Your task to perform on an android device: open chrome privacy settings Image 0: 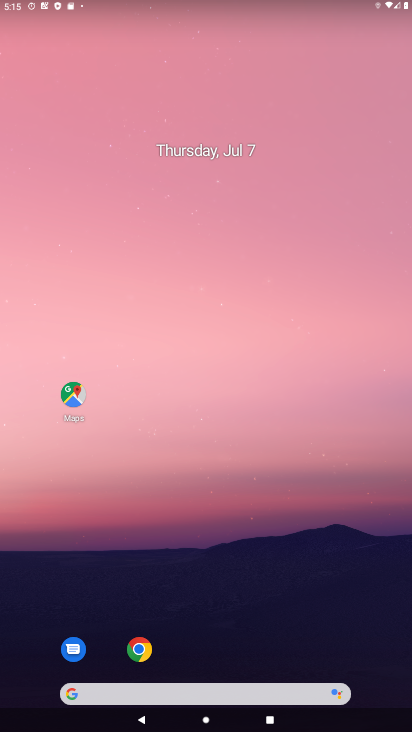
Step 0: drag from (358, 666) to (215, 133)
Your task to perform on an android device: open chrome privacy settings Image 1: 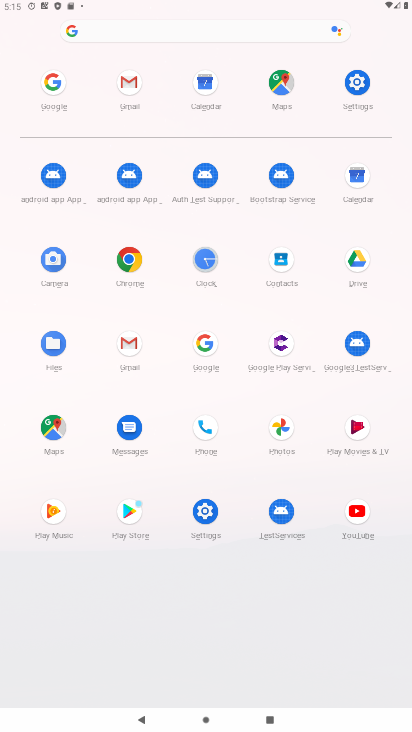
Step 1: click (125, 280)
Your task to perform on an android device: open chrome privacy settings Image 2: 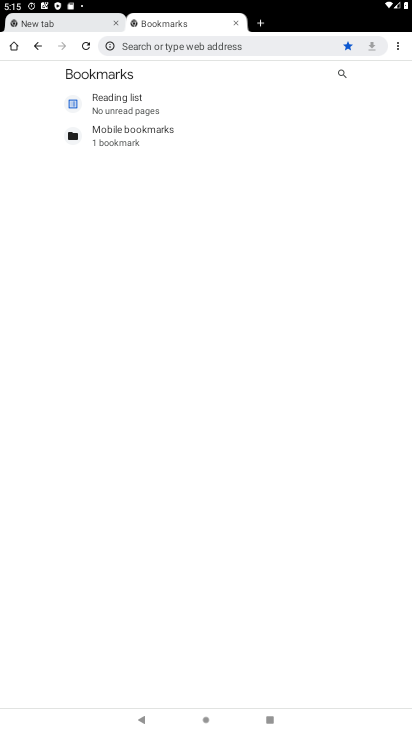
Step 2: press back button
Your task to perform on an android device: open chrome privacy settings Image 3: 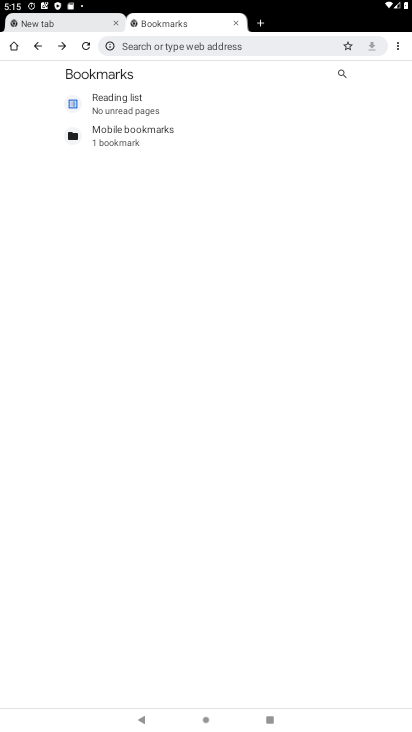
Step 3: click (401, 49)
Your task to perform on an android device: open chrome privacy settings Image 4: 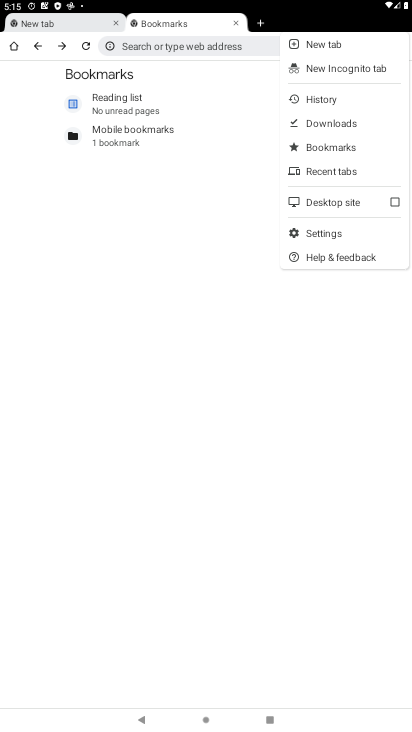
Step 4: click (333, 243)
Your task to perform on an android device: open chrome privacy settings Image 5: 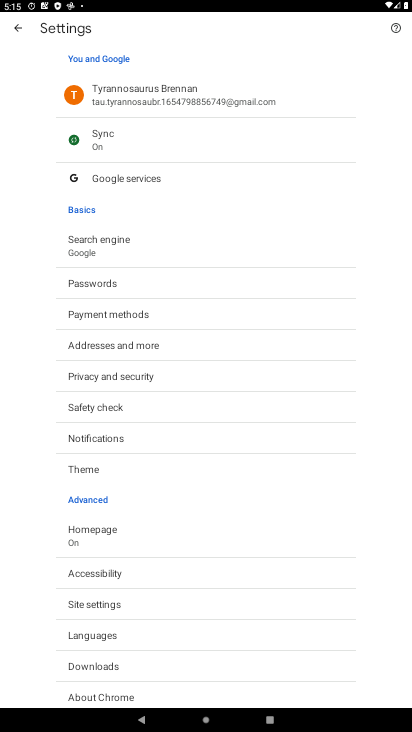
Step 5: click (163, 374)
Your task to perform on an android device: open chrome privacy settings Image 6: 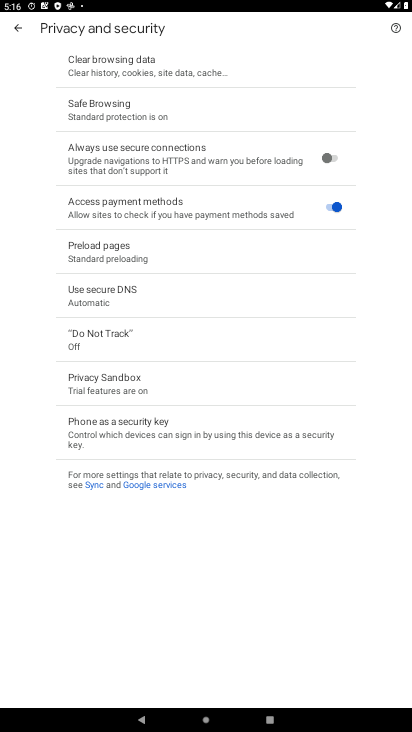
Step 6: task complete